Your task to perform on an android device: delete the emails in spam in the gmail app Image 0: 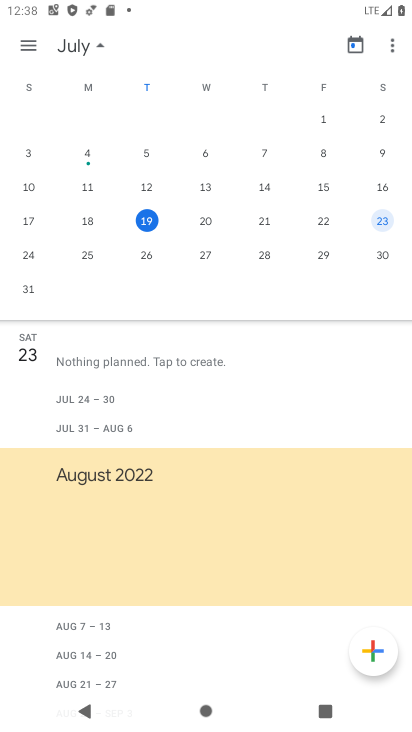
Step 0: press home button
Your task to perform on an android device: delete the emails in spam in the gmail app Image 1: 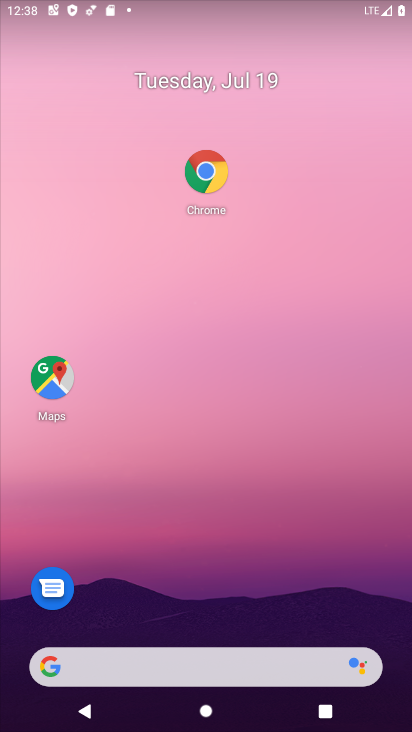
Step 1: drag from (117, 594) to (146, 52)
Your task to perform on an android device: delete the emails in spam in the gmail app Image 2: 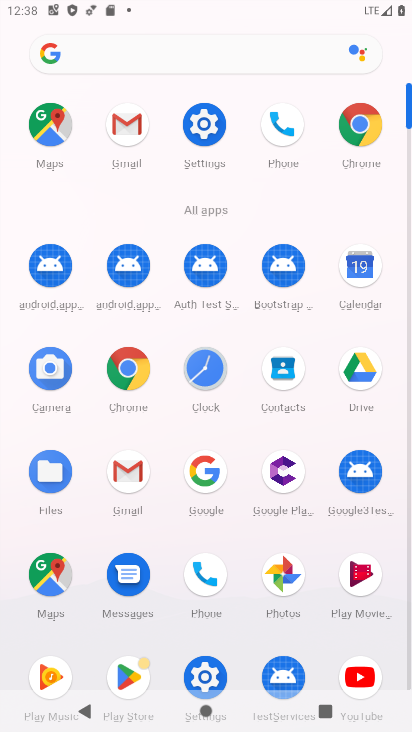
Step 2: click (135, 151)
Your task to perform on an android device: delete the emails in spam in the gmail app Image 3: 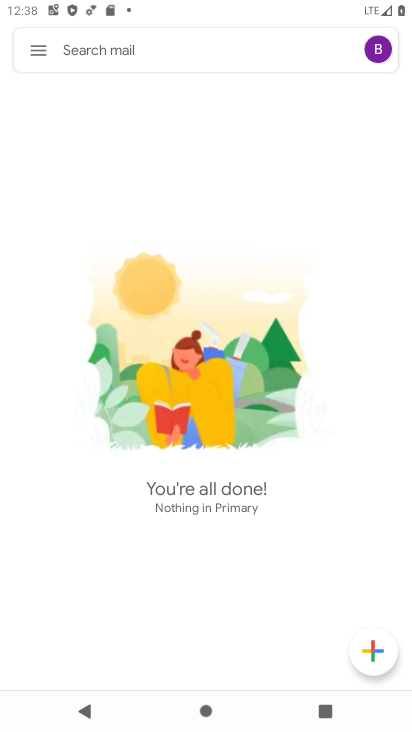
Step 3: click (30, 42)
Your task to perform on an android device: delete the emails in spam in the gmail app Image 4: 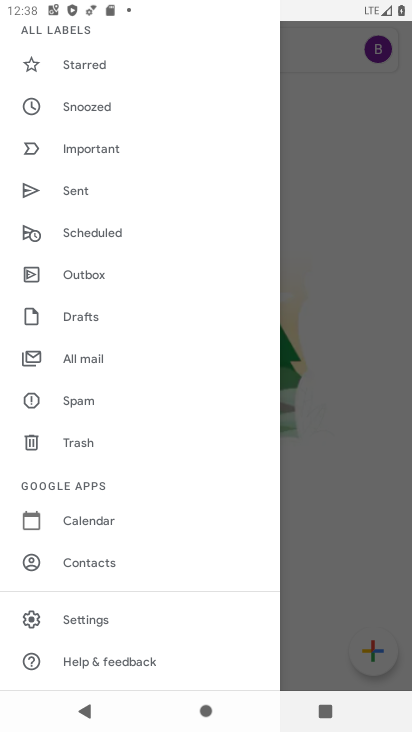
Step 4: click (77, 399)
Your task to perform on an android device: delete the emails in spam in the gmail app Image 5: 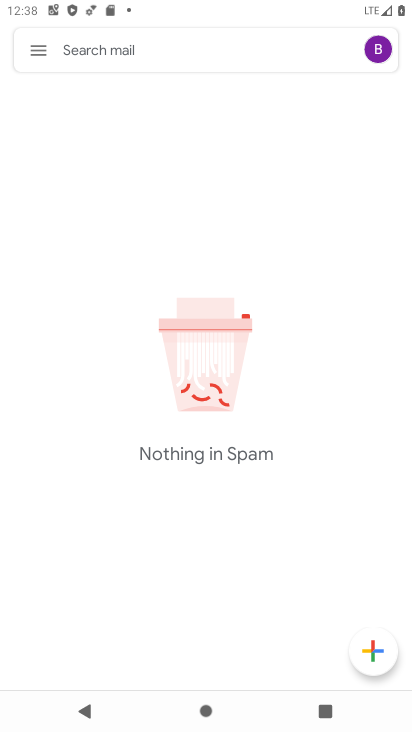
Step 5: task complete